Your task to perform on an android device: Search for seafood restaurants on Google Maps Image 0: 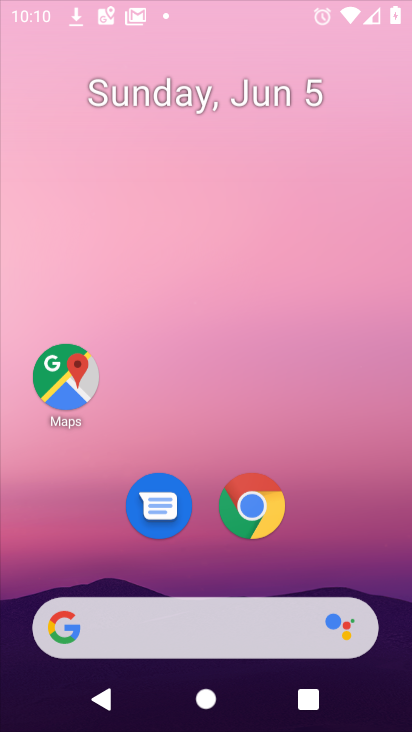
Step 0: drag from (253, 499) to (211, 88)
Your task to perform on an android device: Search for seafood restaurants on Google Maps Image 1: 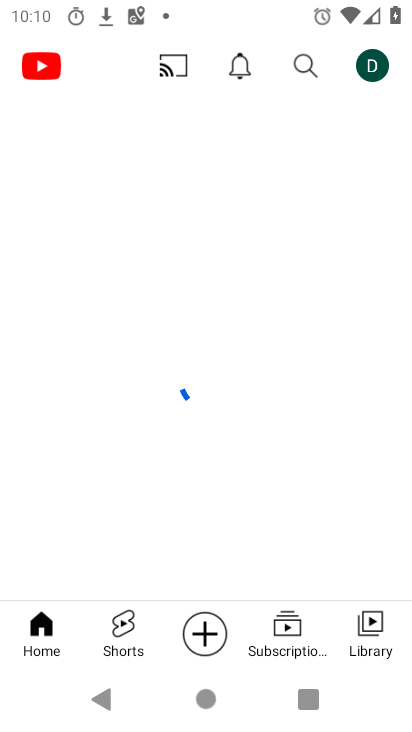
Step 1: press home button
Your task to perform on an android device: Search for seafood restaurants on Google Maps Image 2: 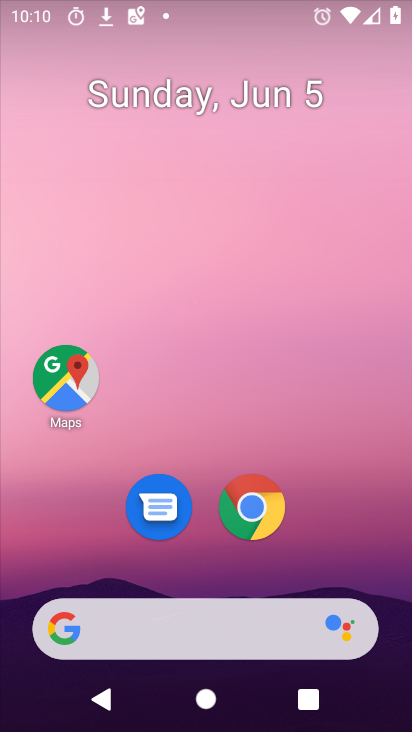
Step 2: drag from (251, 666) to (256, 128)
Your task to perform on an android device: Search for seafood restaurants on Google Maps Image 3: 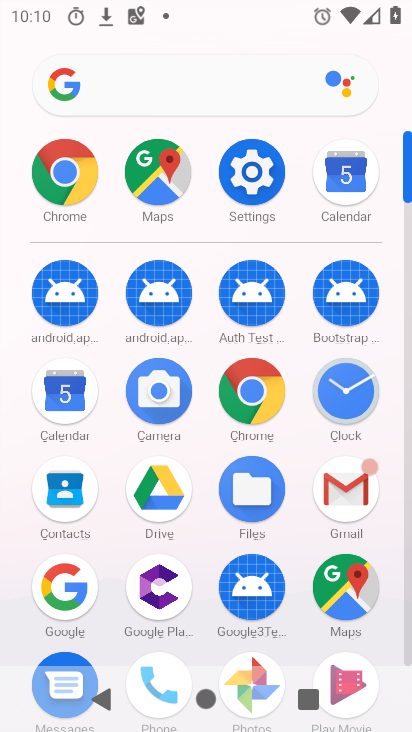
Step 3: click (329, 586)
Your task to perform on an android device: Search for seafood restaurants on Google Maps Image 4: 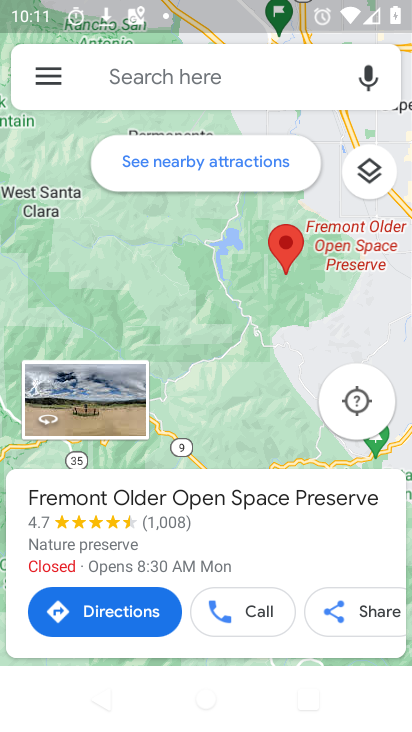
Step 4: click (154, 78)
Your task to perform on an android device: Search for seafood restaurants on Google Maps Image 5: 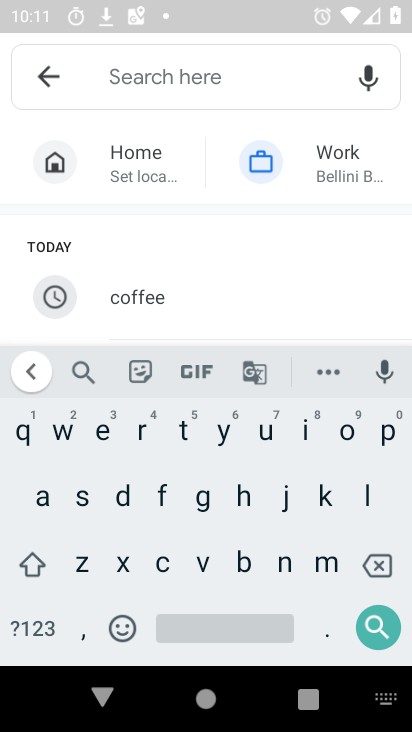
Step 5: click (86, 496)
Your task to perform on an android device: Search for seafood restaurants on Google Maps Image 6: 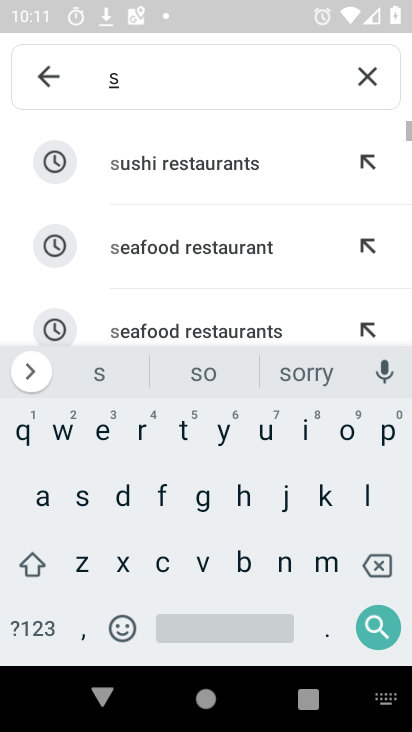
Step 6: click (101, 430)
Your task to perform on an android device: Search for seafood restaurants on Google Maps Image 7: 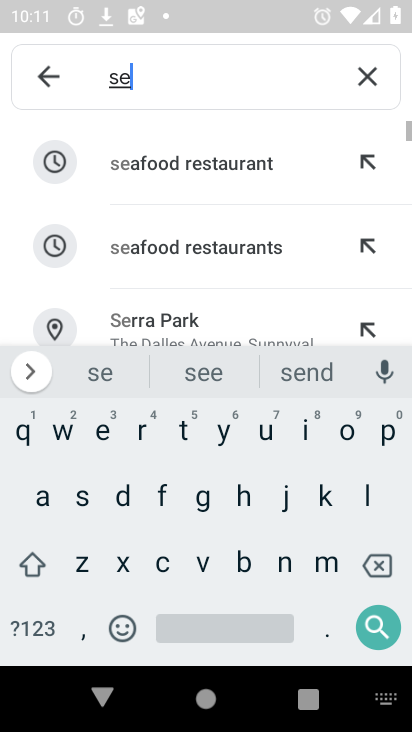
Step 7: click (175, 159)
Your task to perform on an android device: Search for seafood restaurants on Google Maps Image 8: 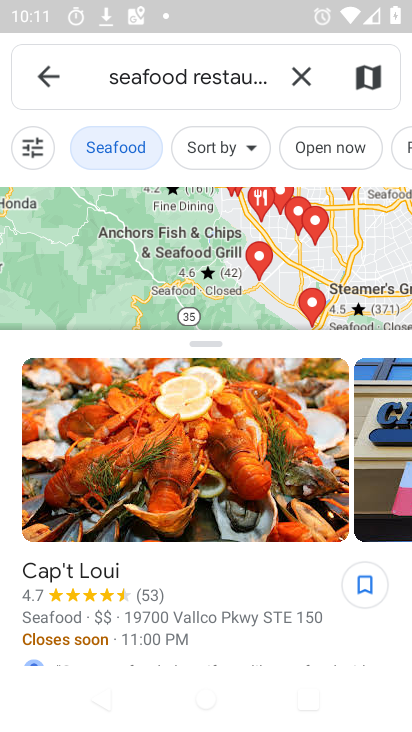
Step 8: task complete